Your task to perform on an android device: Open Android settings Image 0: 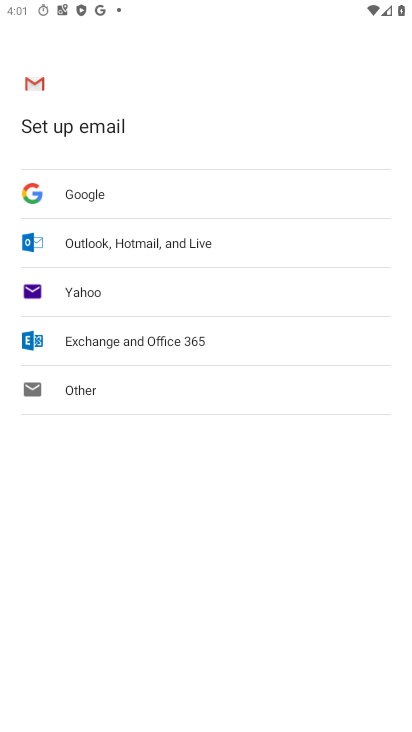
Step 0: press home button
Your task to perform on an android device: Open Android settings Image 1: 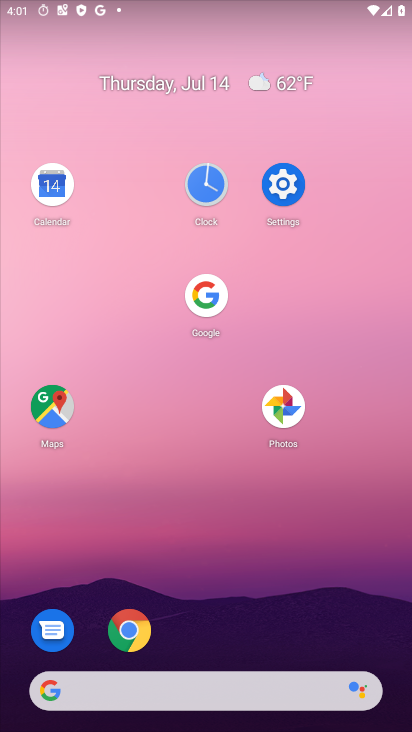
Step 1: click (280, 184)
Your task to perform on an android device: Open Android settings Image 2: 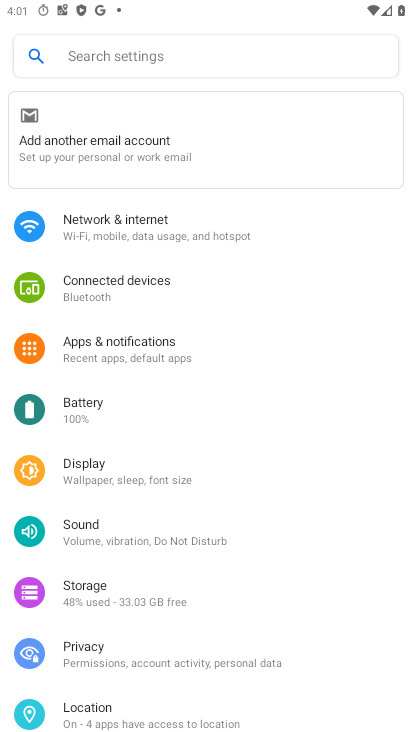
Step 2: task complete